Your task to perform on an android device: check data usage Image 0: 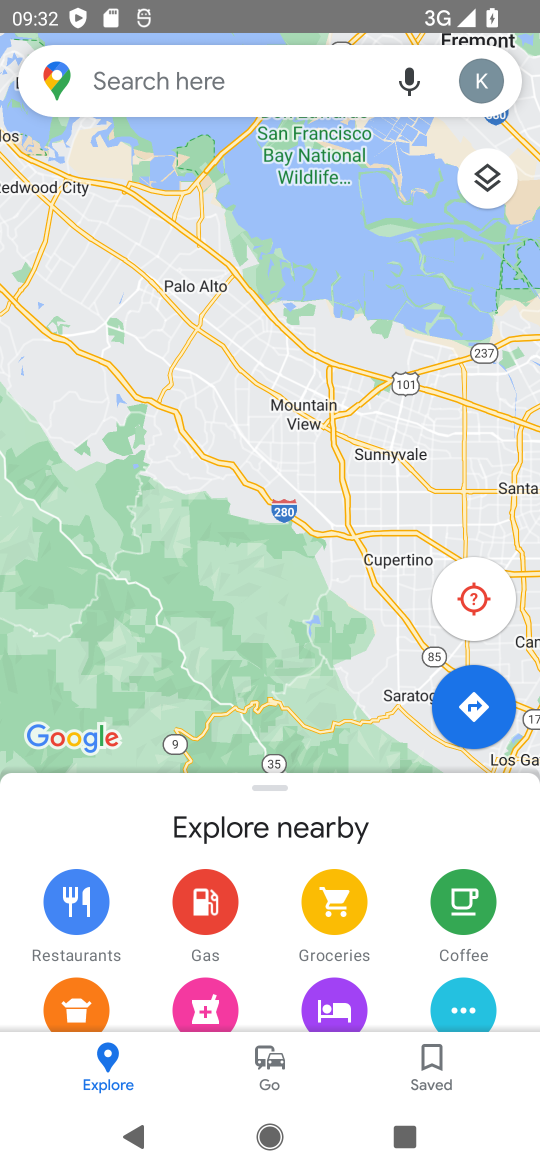
Step 0: press home button
Your task to perform on an android device: check data usage Image 1: 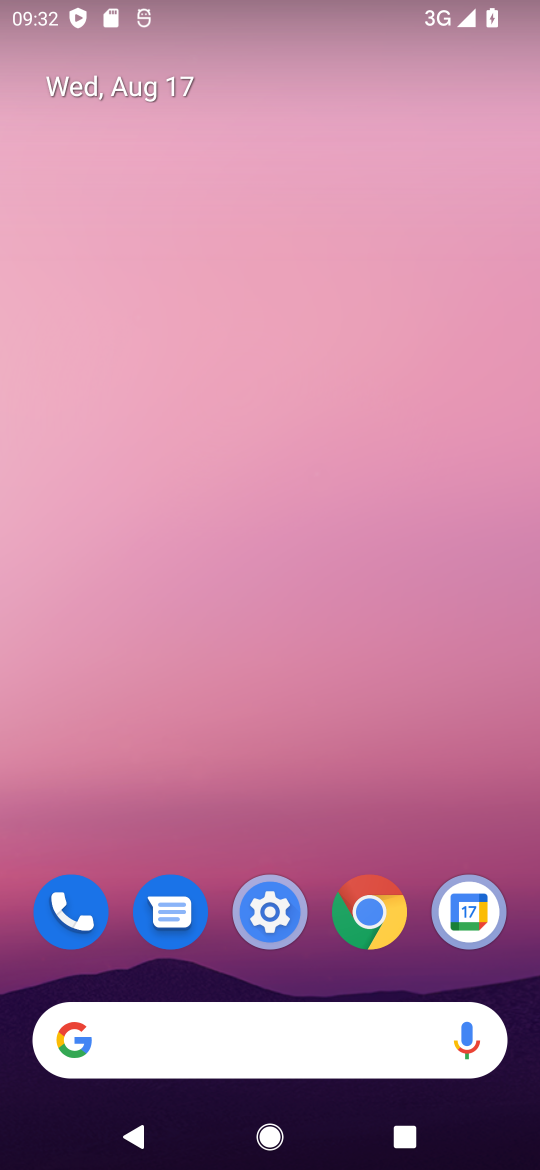
Step 1: click (260, 907)
Your task to perform on an android device: check data usage Image 2: 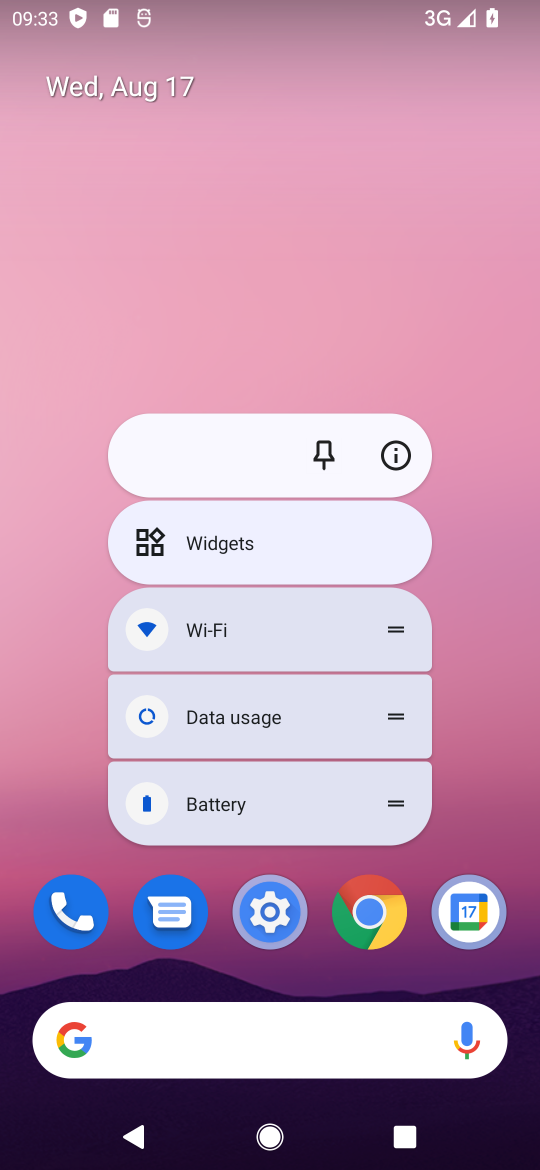
Step 2: drag from (226, 1017) to (226, 562)
Your task to perform on an android device: check data usage Image 3: 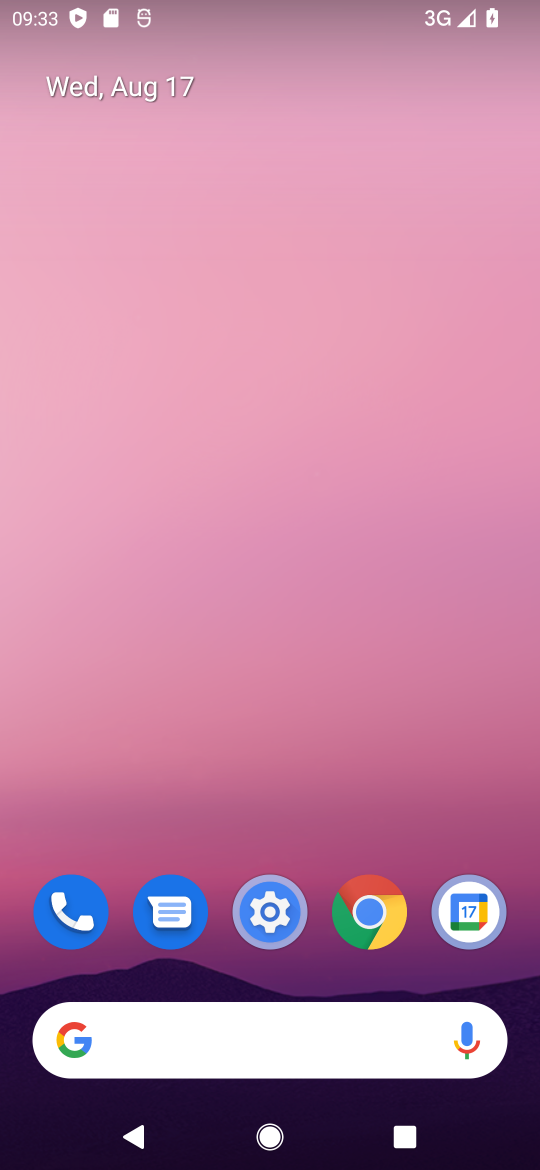
Step 3: click (272, 912)
Your task to perform on an android device: check data usage Image 4: 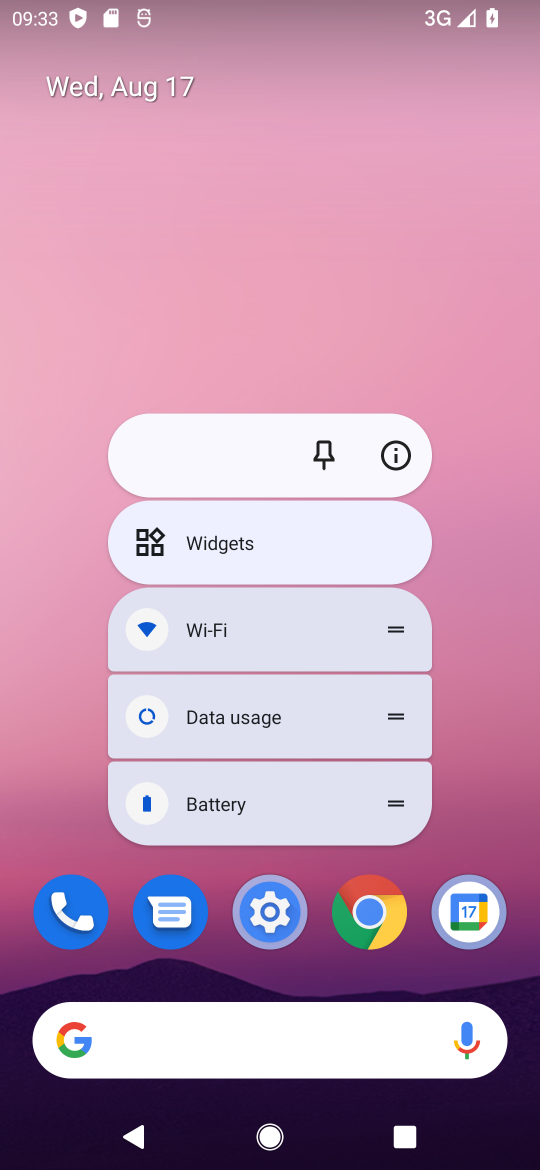
Step 4: click (272, 912)
Your task to perform on an android device: check data usage Image 5: 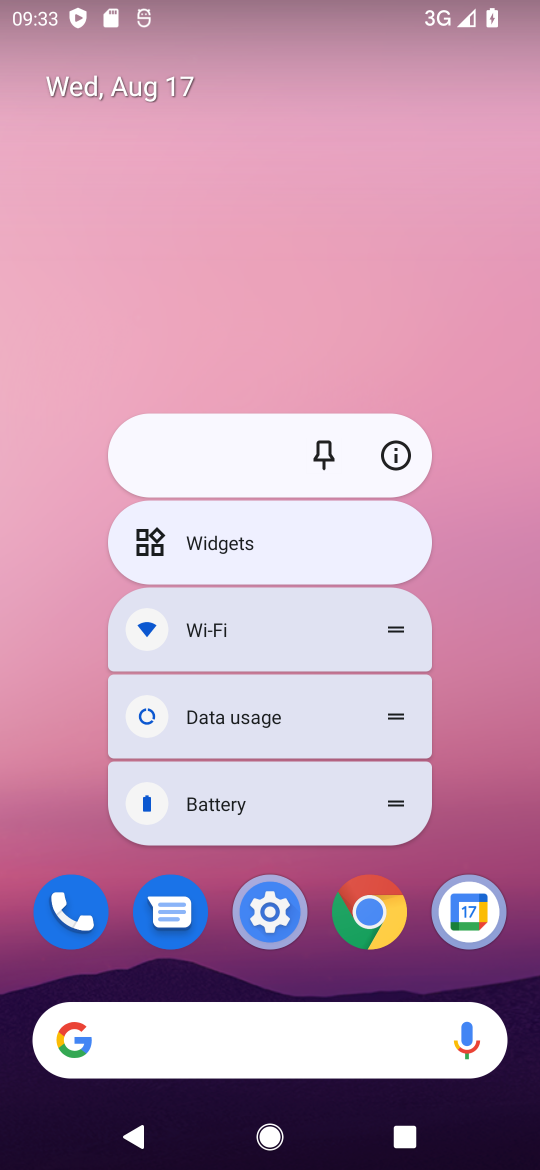
Step 5: click (272, 912)
Your task to perform on an android device: check data usage Image 6: 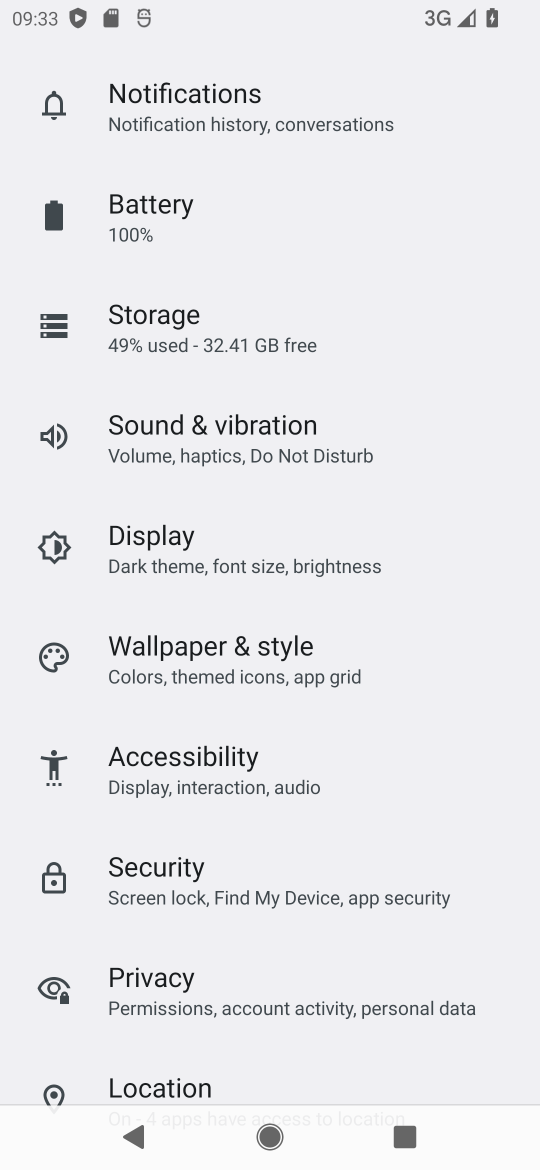
Step 6: drag from (316, 275) to (249, 1002)
Your task to perform on an android device: check data usage Image 7: 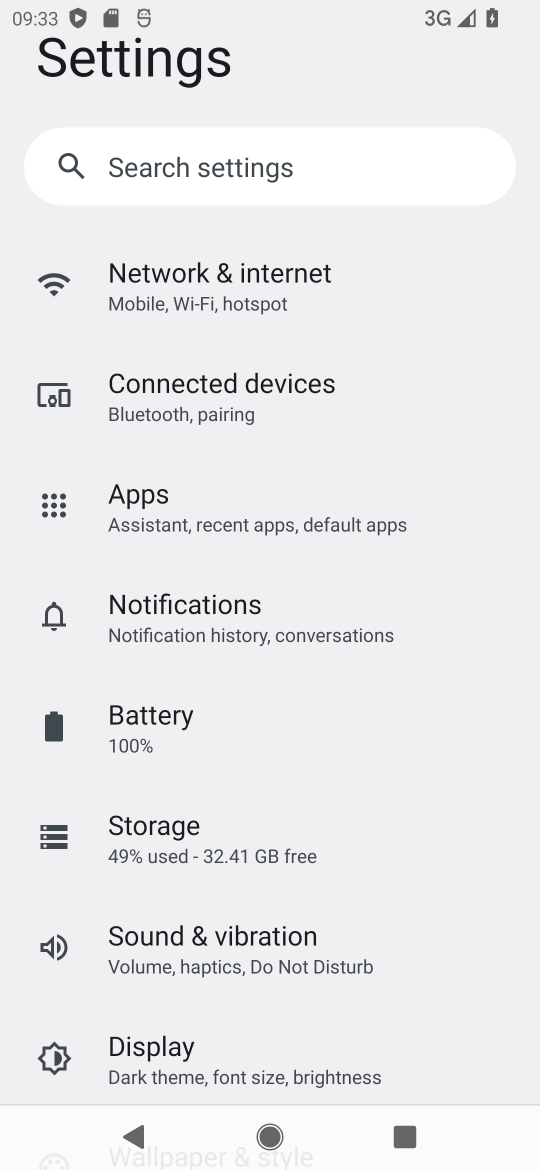
Step 7: click (204, 290)
Your task to perform on an android device: check data usage Image 8: 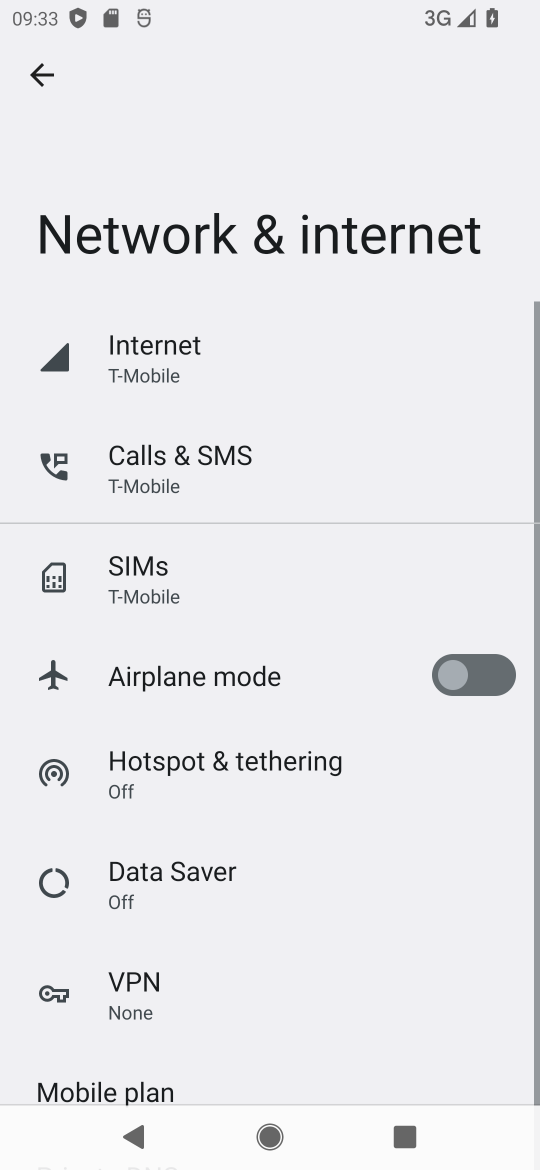
Step 8: click (159, 349)
Your task to perform on an android device: check data usage Image 9: 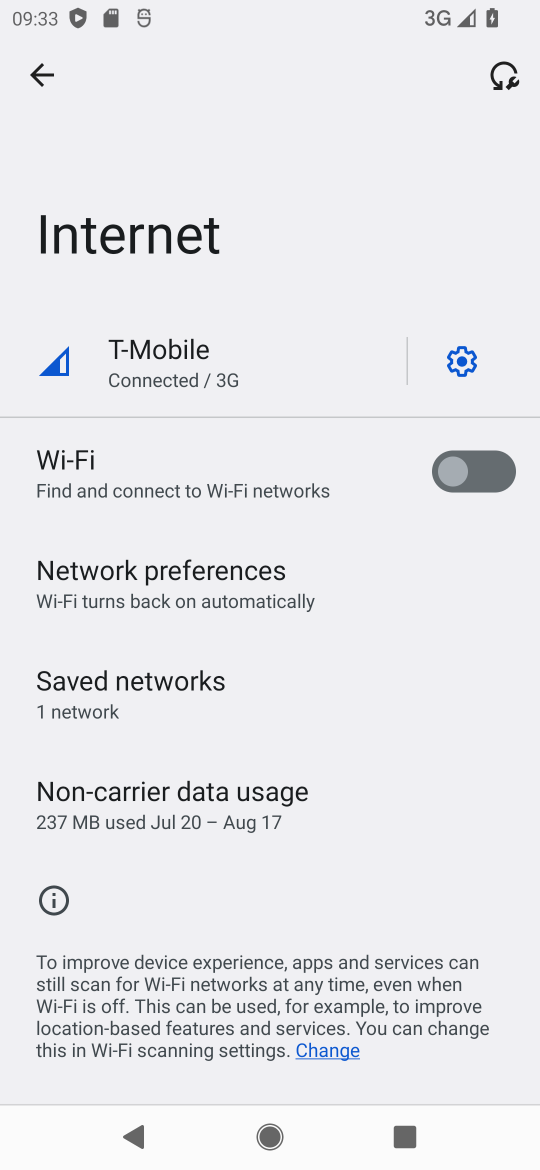
Step 9: drag from (164, 1053) to (128, 584)
Your task to perform on an android device: check data usage Image 10: 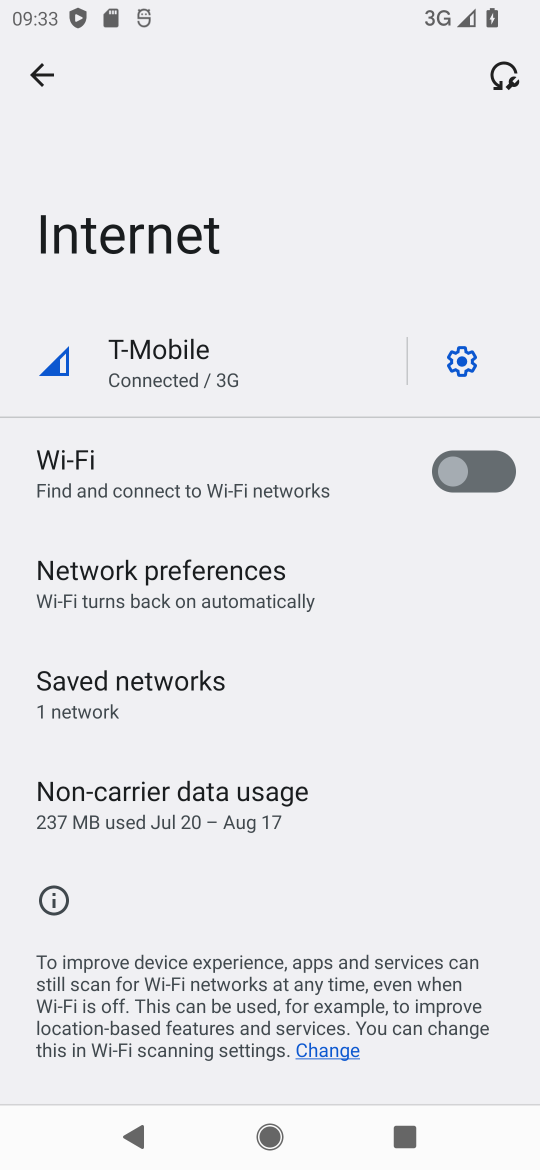
Step 10: drag from (188, 920) to (197, 500)
Your task to perform on an android device: check data usage Image 11: 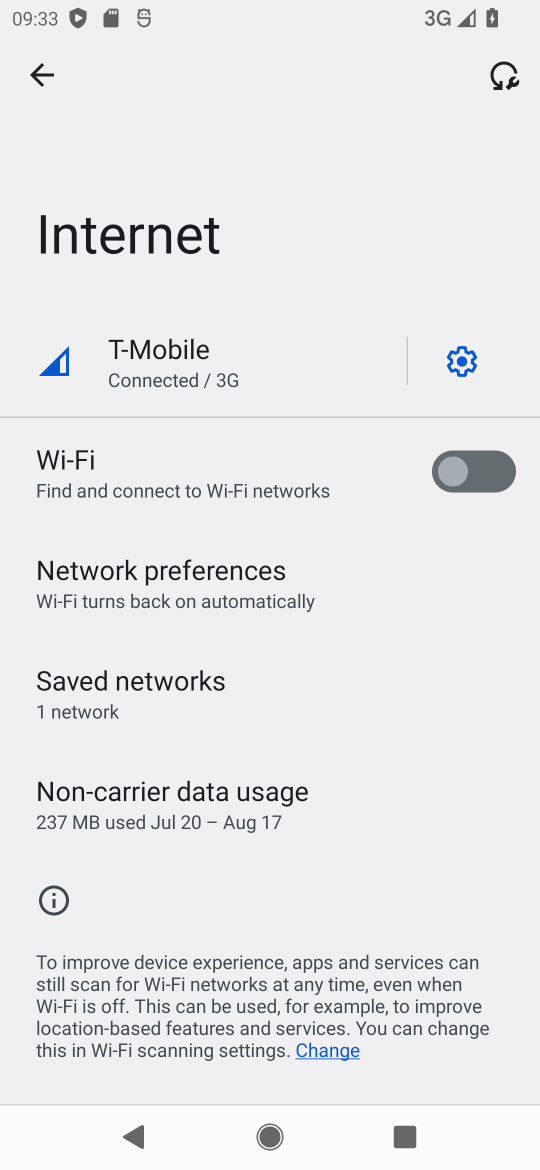
Step 11: click (221, 797)
Your task to perform on an android device: check data usage Image 12: 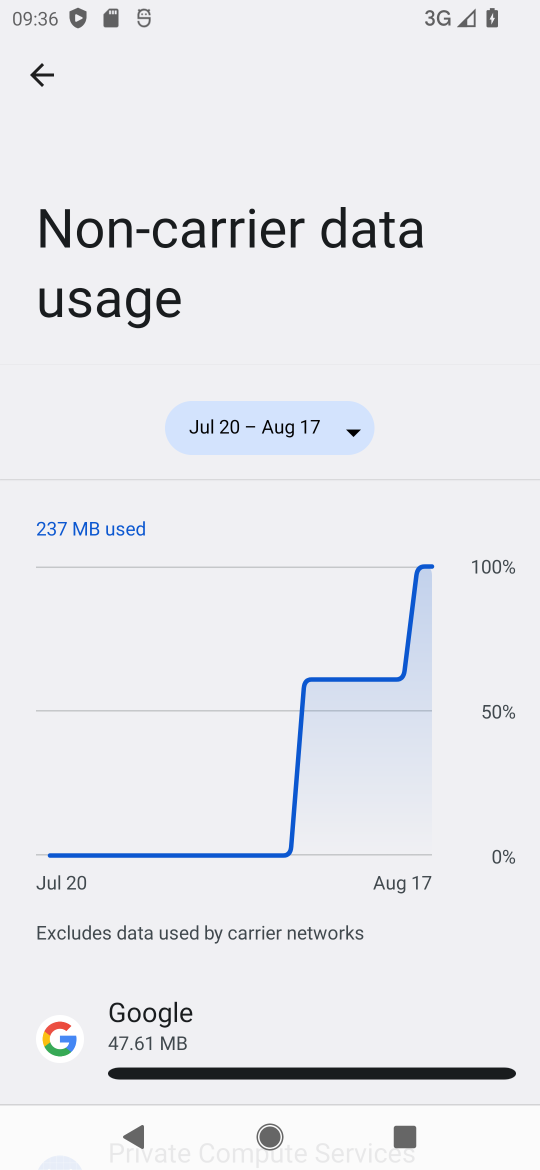
Step 12: task complete